Your task to perform on an android device: change timer sound Image 0: 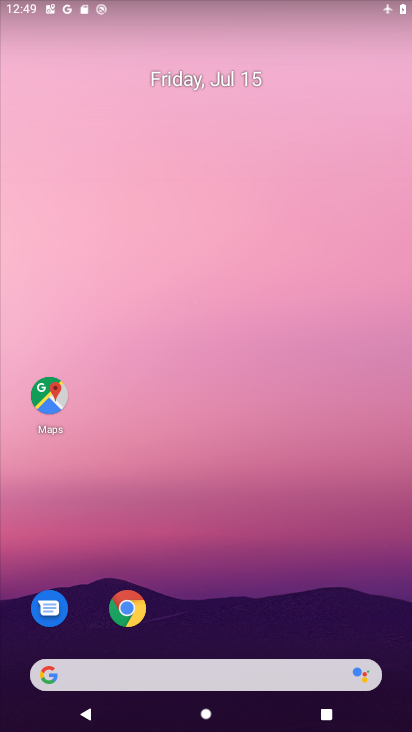
Step 0: drag from (308, 582) to (230, 209)
Your task to perform on an android device: change timer sound Image 1: 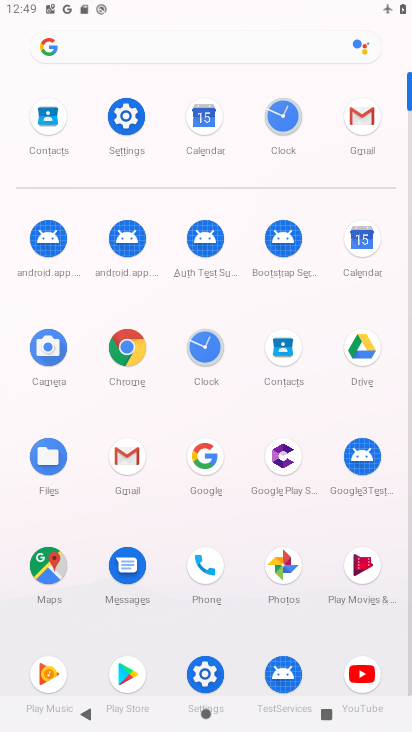
Step 1: click (205, 343)
Your task to perform on an android device: change timer sound Image 2: 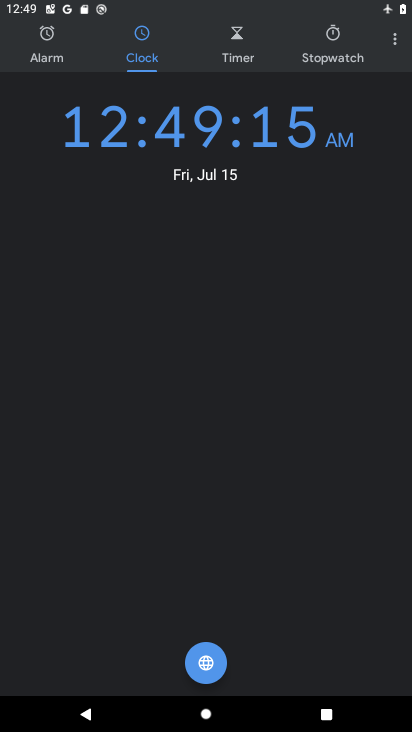
Step 2: click (399, 44)
Your task to perform on an android device: change timer sound Image 3: 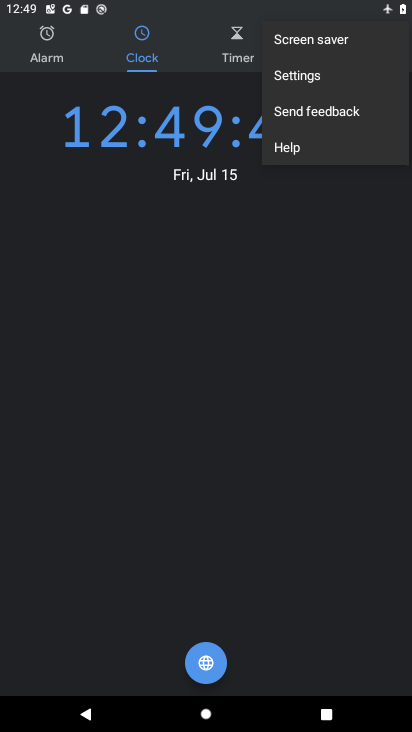
Step 3: click (302, 74)
Your task to perform on an android device: change timer sound Image 4: 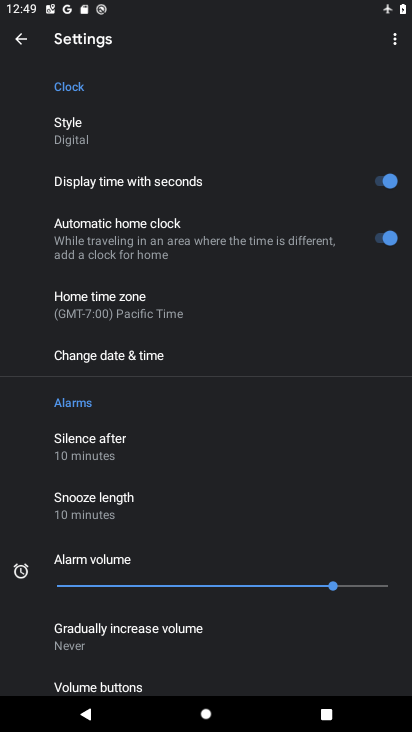
Step 4: drag from (178, 528) to (176, 254)
Your task to perform on an android device: change timer sound Image 5: 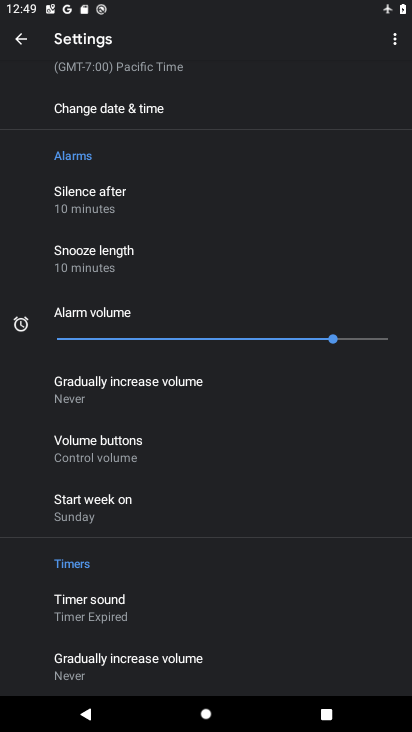
Step 5: click (93, 604)
Your task to perform on an android device: change timer sound Image 6: 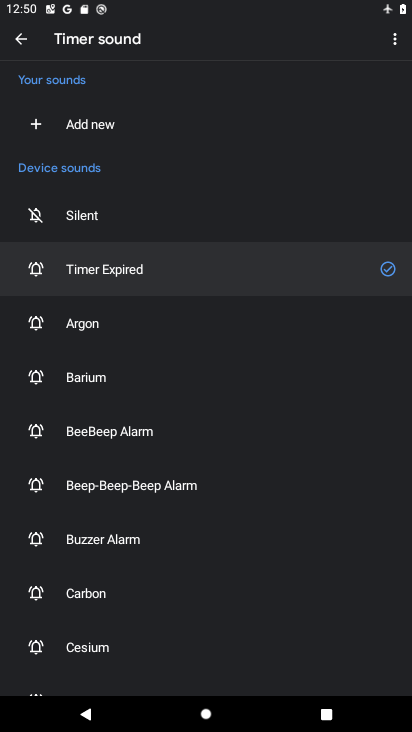
Step 6: click (85, 325)
Your task to perform on an android device: change timer sound Image 7: 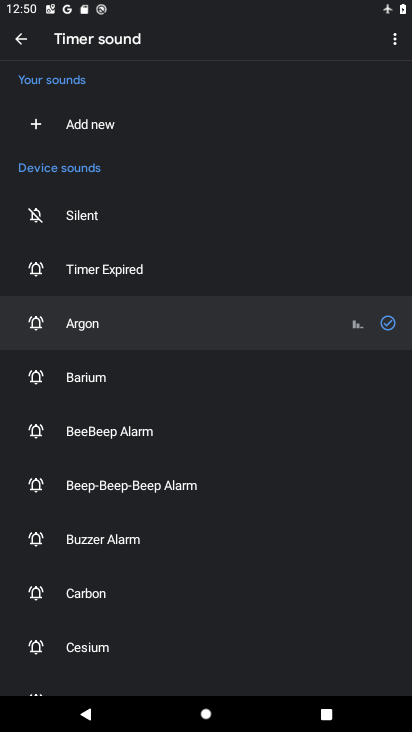
Step 7: task complete